Your task to perform on an android device: open a bookmark in the chrome app Image 0: 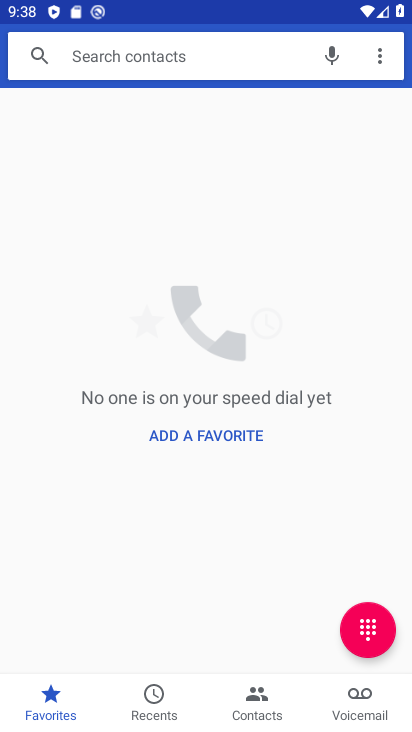
Step 0: task complete